Your task to perform on an android device: toggle wifi Image 0: 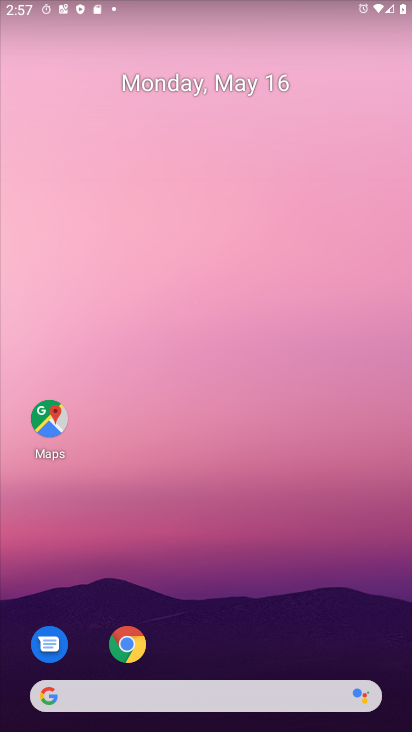
Step 0: drag from (171, 704) to (172, 270)
Your task to perform on an android device: toggle wifi Image 1: 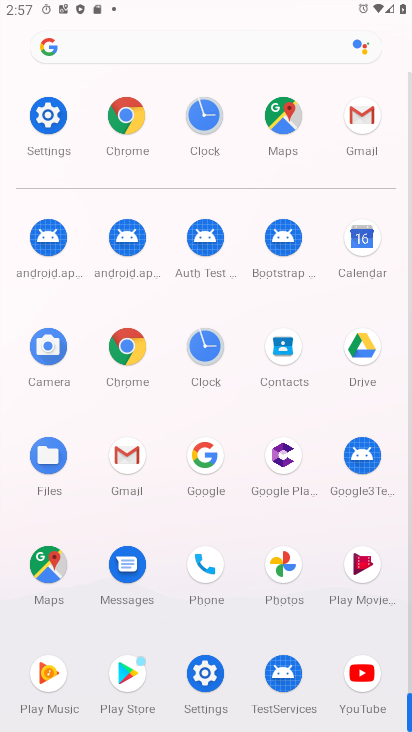
Step 1: click (61, 141)
Your task to perform on an android device: toggle wifi Image 2: 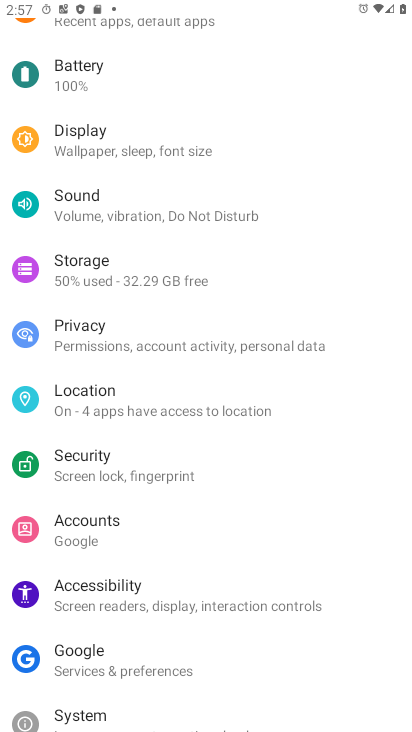
Step 2: drag from (202, 259) to (179, 654)
Your task to perform on an android device: toggle wifi Image 3: 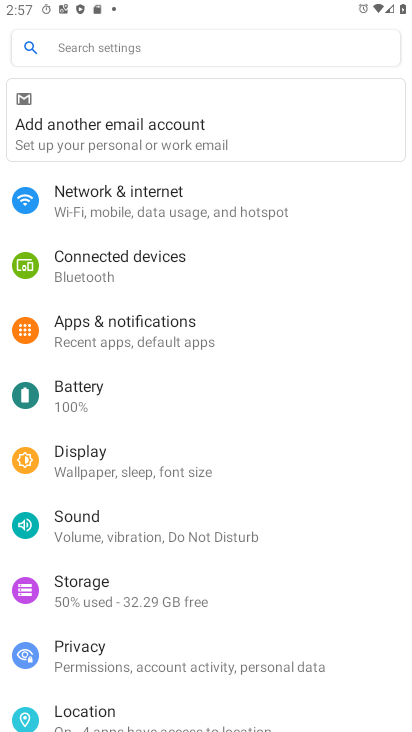
Step 3: drag from (178, 398) to (176, 547)
Your task to perform on an android device: toggle wifi Image 4: 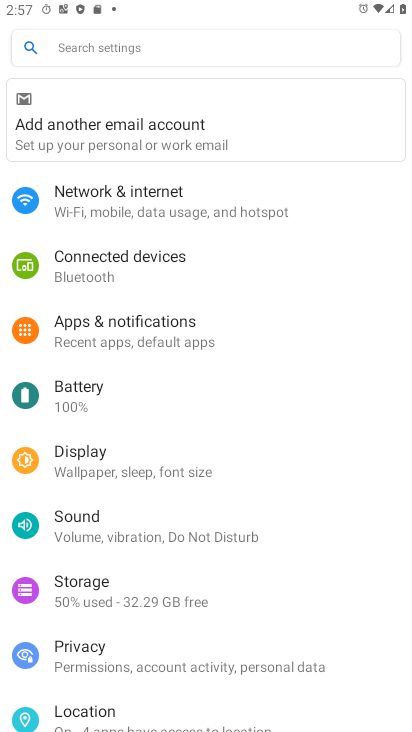
Step 4: click (227, 207)
Your task to perform on an android device: toggle wifi Image 5: 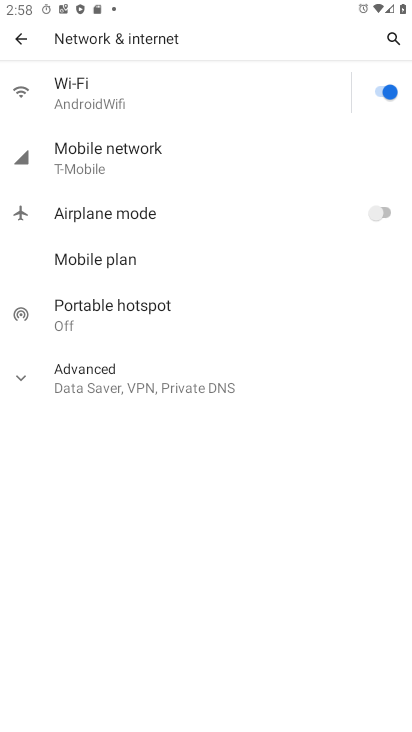
Step 5: click (377, 95)
Your task to perform on an android device: toggle wifi Image 6: 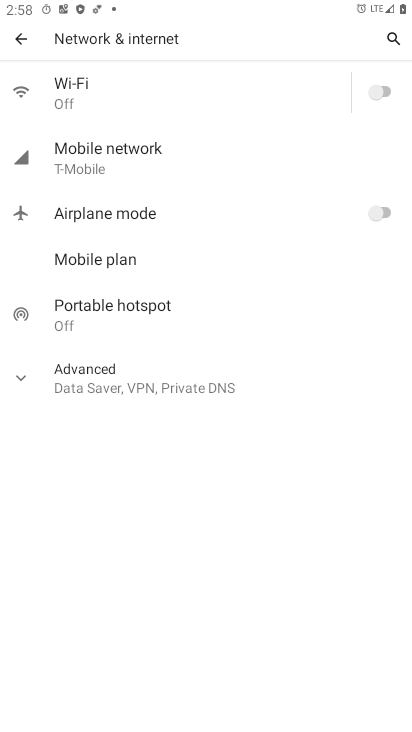
Step 6: task complete